Your task to perform on an android device: change the clock style Image 0: 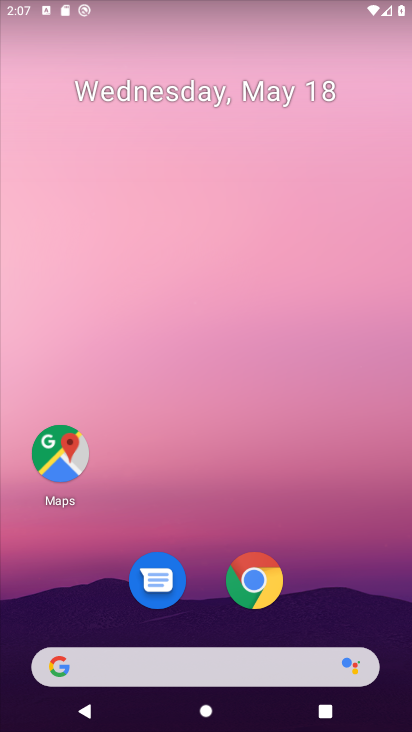
Step 0: drag from (197, 632) to (260, 31)
Your task to perform on an android device: change the clock style Image 1: 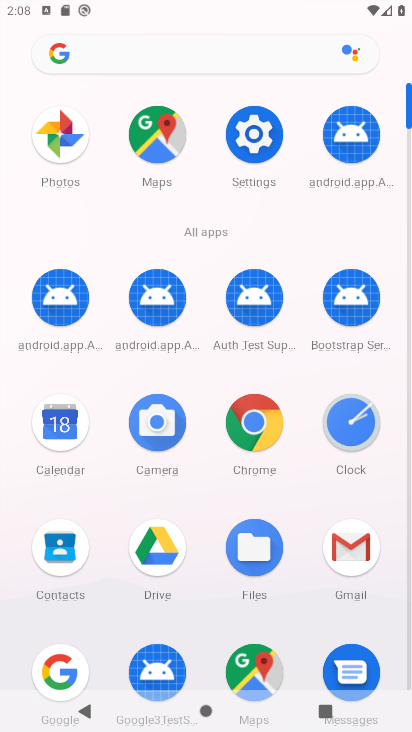
Step 1: drag from (213, 485) to (269, 227)
Your task to perform on an android device: change the clock style Image 2: 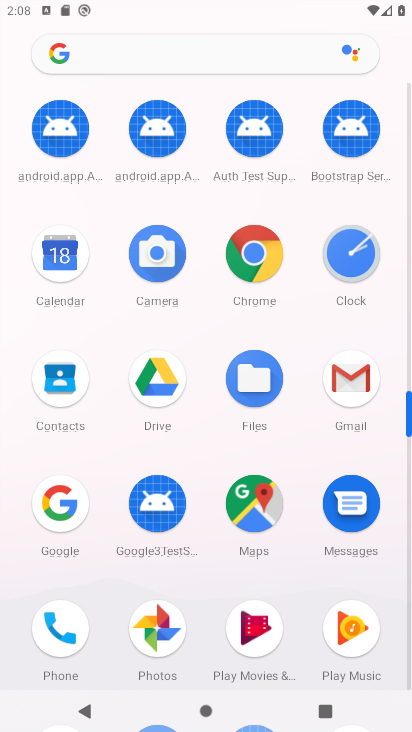
Step 2: click (355, 260)
Your task to perform on an android device: change the clock style Image 3: 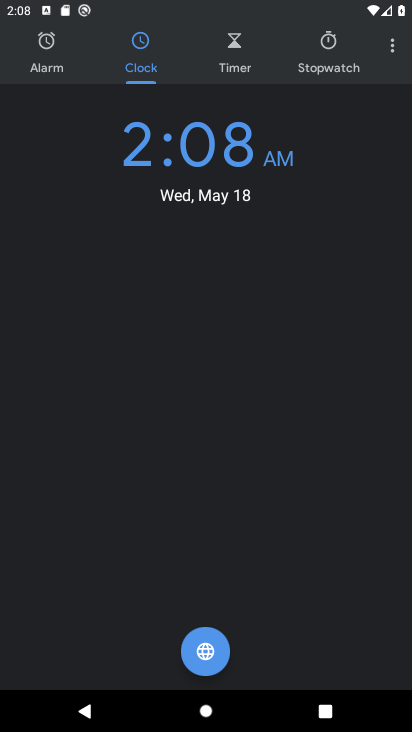
Step 3: click (391, 49)
Your task to perform on an android device: change the clock style Image 4: 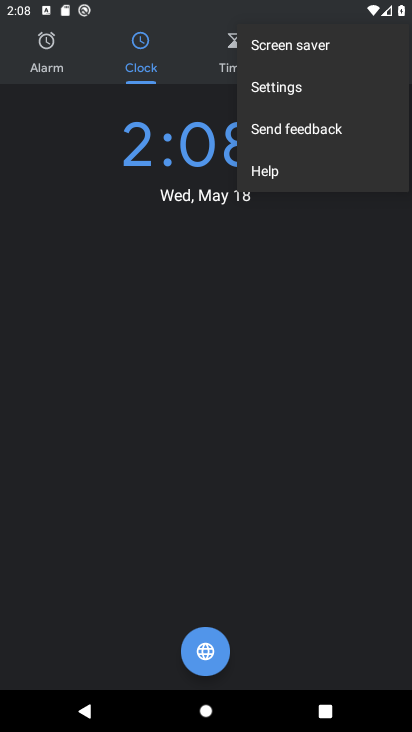
Step 4: click (290, 96)
Your task to perform on an android device: change the clock style Image 5: 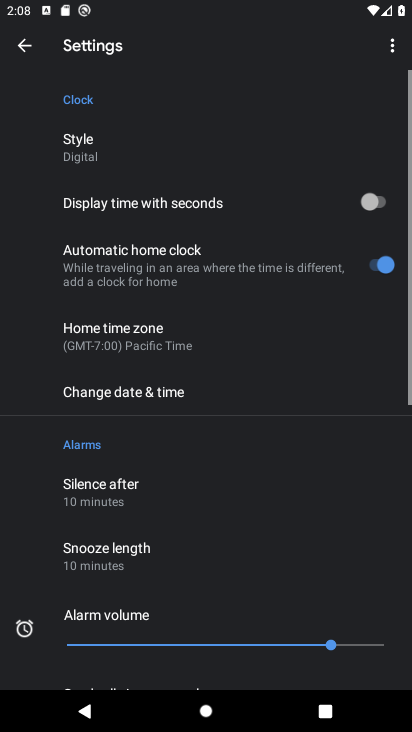
Step 5: click (116, 154)
Your task to perform on an android device: change the clock style Image 6: 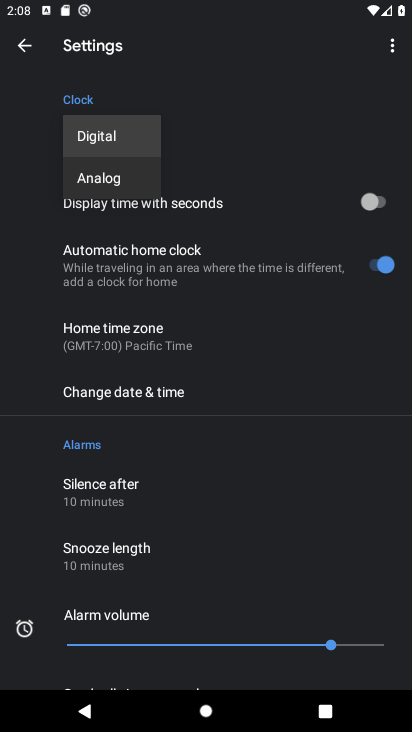
Step 6: click (119, 170)
Your task to perform on an android device: change the clock style Image 7: 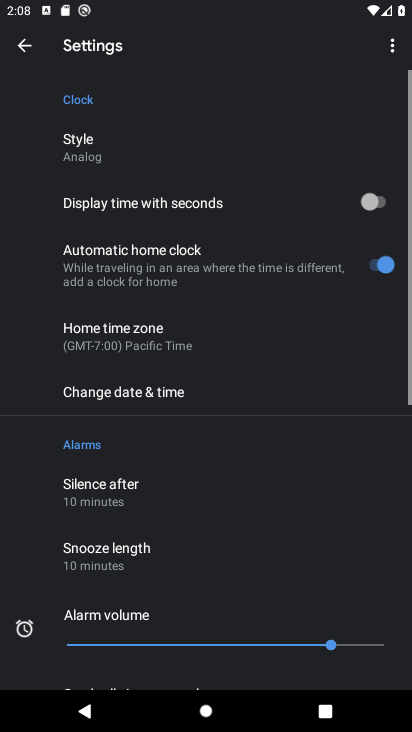
Step 7: task complete